Your task to perform on an android device: uninstall "TextNow: Call + Text Unlimited" Image 0: 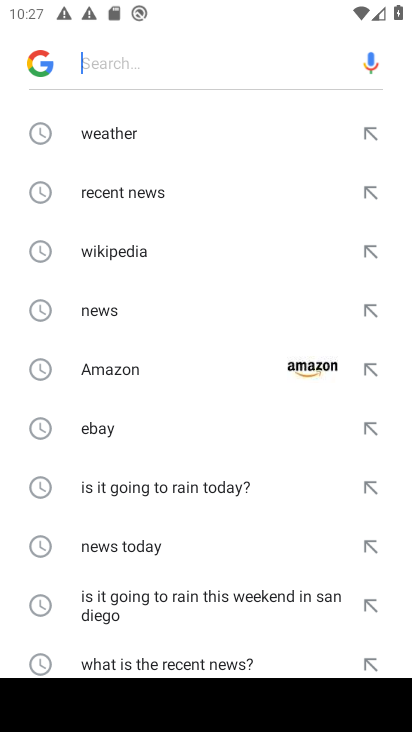
Step 0: press home button
Your task to perform on an android device: uninstall "TextNow: Call + Text Unlimited" Image 1: 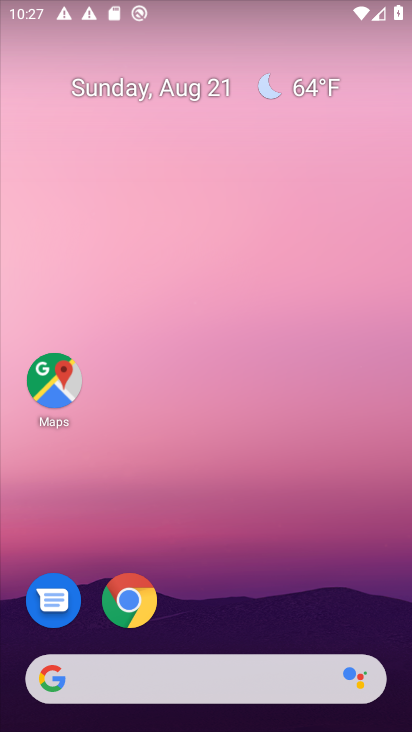
Step 1: drag from (265, 611) to (262, 175)
Your task to perform on an android device: uninstall "TextNow: Call + Text Unlimited" Image 2: 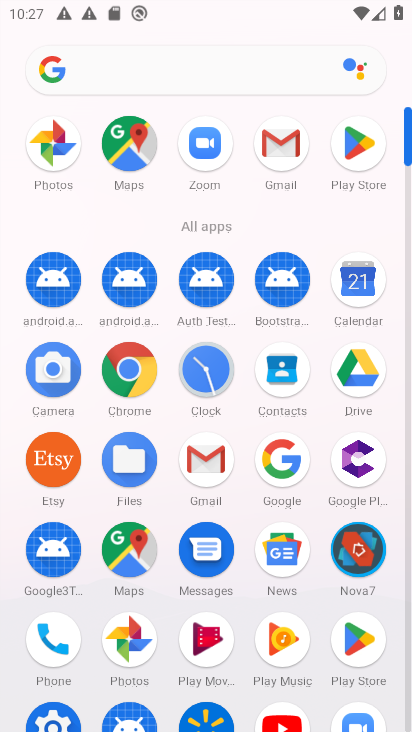
Step 2: click (372, 161)
Your task to perform on an android device: uninstall "TextNow: Call + Text Unlimited" Image 3: 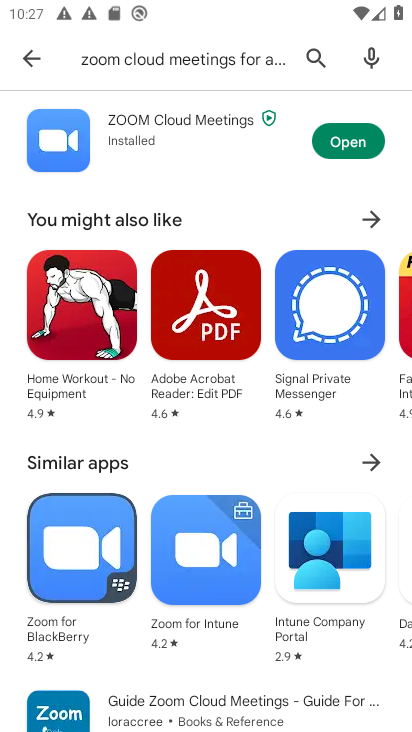
Step 3: click (151, 61)
Your task to perform on an android device: uninstall "TextNow: Call + Text Unlimited" Image 4: 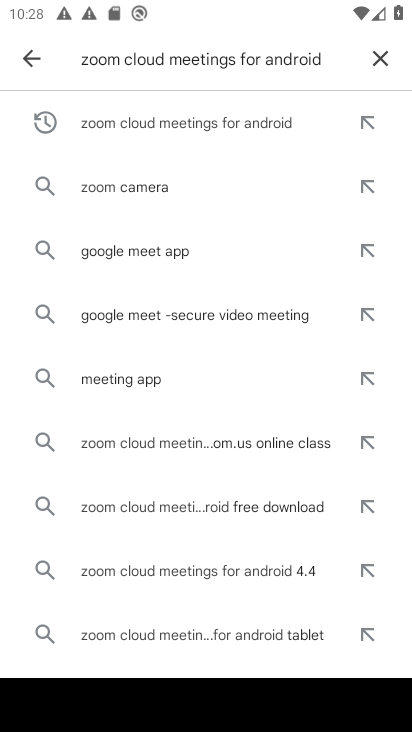
Step 4: click (378, 56)
Your task to perform on an android device: uninstall "TextNow: Call + Text Unlimited" Image 5: 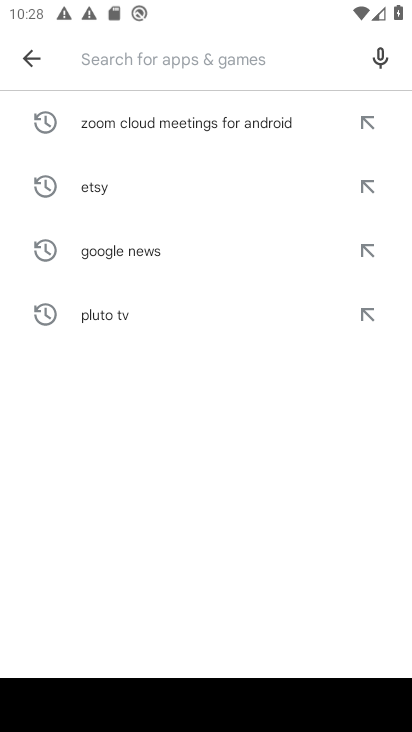
Step 5: type "TextNow"
Your task to perform on an android device: uninstall "TextNow: Call + Text Unlimited" Image 6: 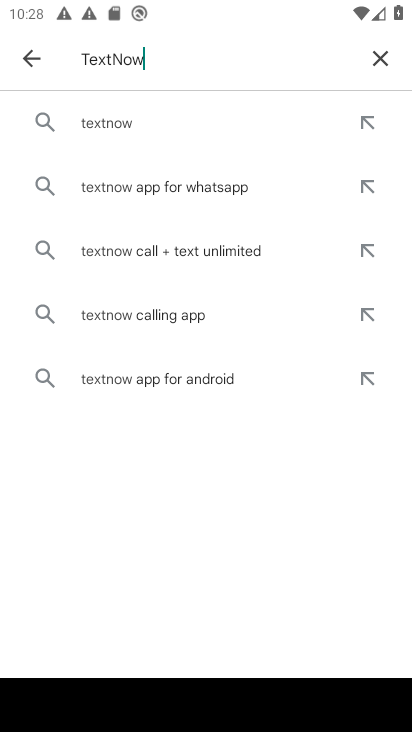
Step 6: click (130, 127)
Your task to perform on an android device: uninstall "TextNow: Call + Text Unlimited" Image 7: 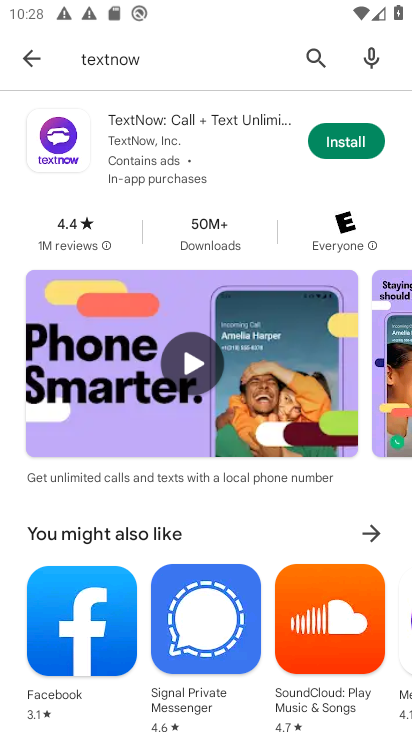
Step 7: task complete